Your task to perform on an android device: turn off data saver in the chrome app Image 0: 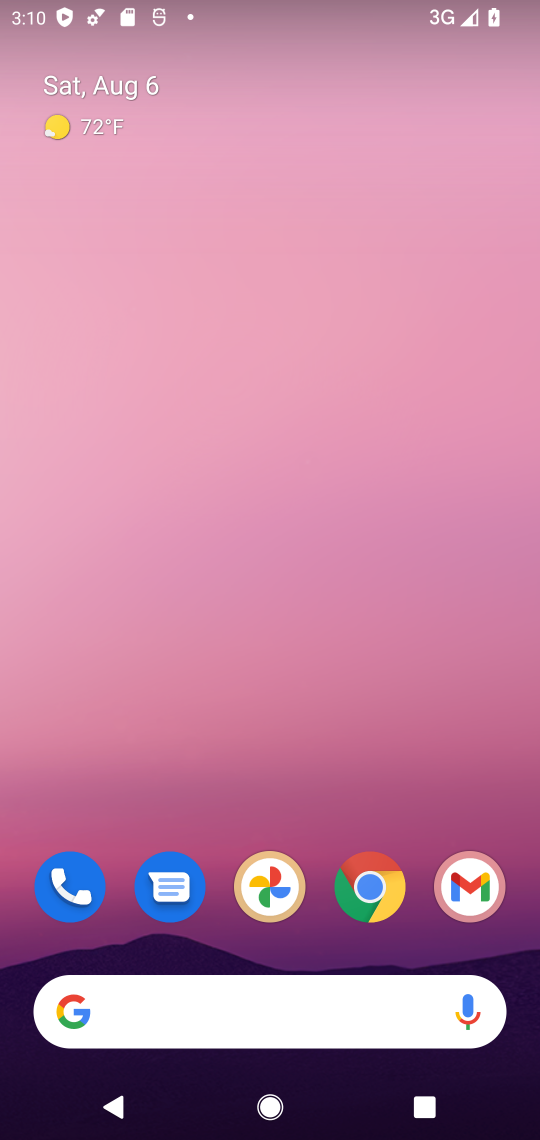
Step 0: press home button
Your task to perform on an android device: turn off data saver in the chrome app Image 1: 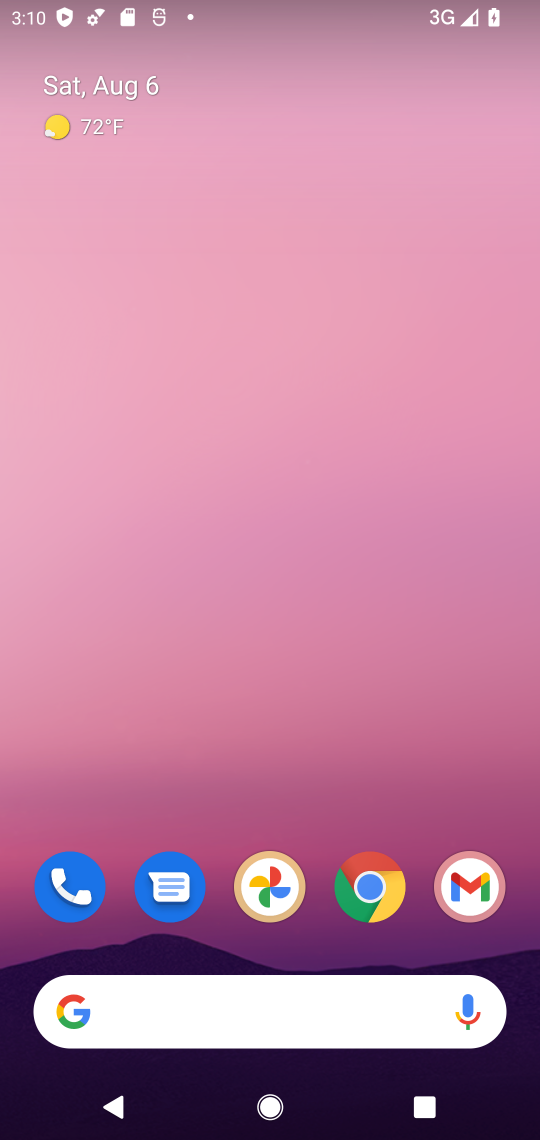
Step 1: drag from (421, 745) to (422, 277)
Your task to perform on an android device: turn off data saver in the chrome app Image 2: 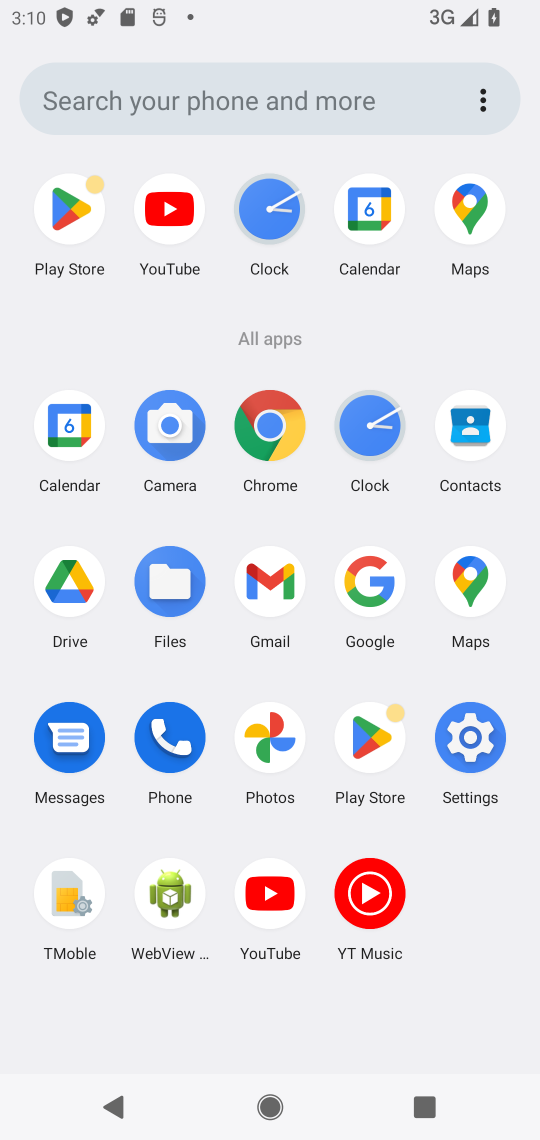
Step 2: click (266, 453)
Your task to perform on an android device: turn off data saver in the chrome app Image 3: 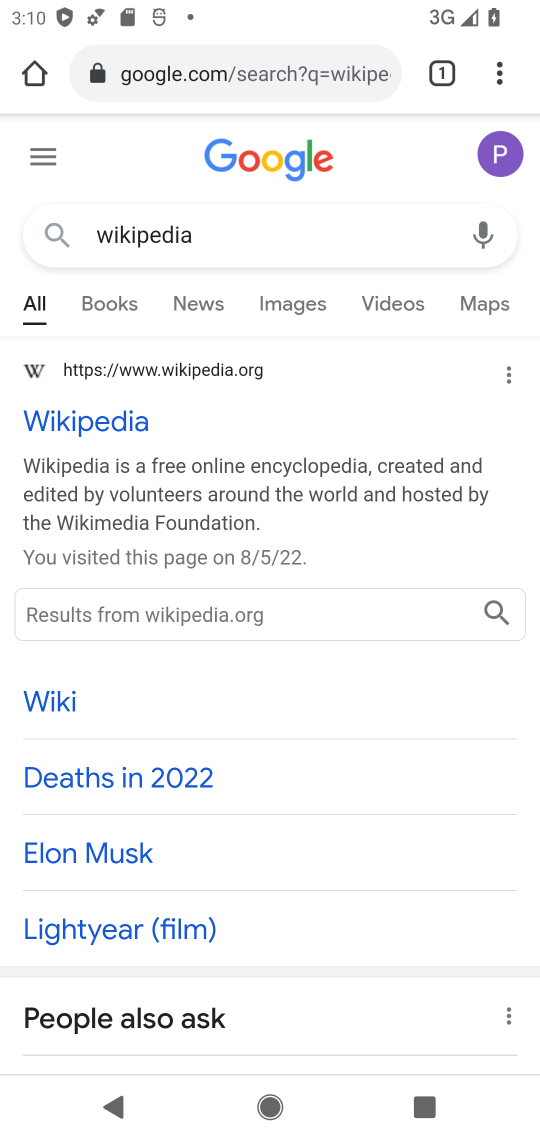
Step 3: click (492, 76)
Your task to perform on an android device: turn off data saver in the chrome app Image 4: 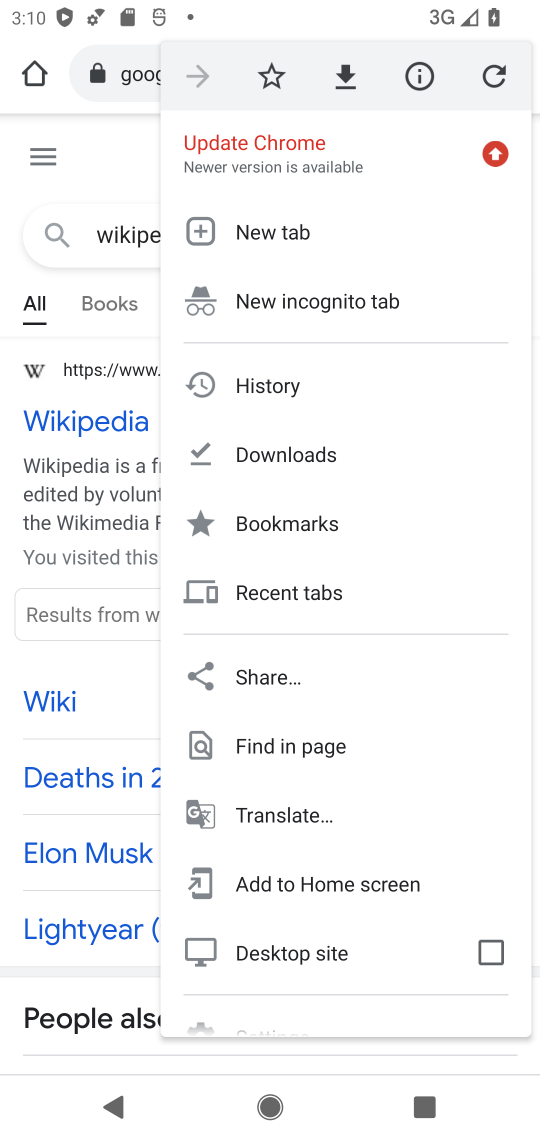
Step 4: drag from (457, 443) to (468, 329)
Your task to perform on an android device: turn off data saver in the chrome app Image 5: 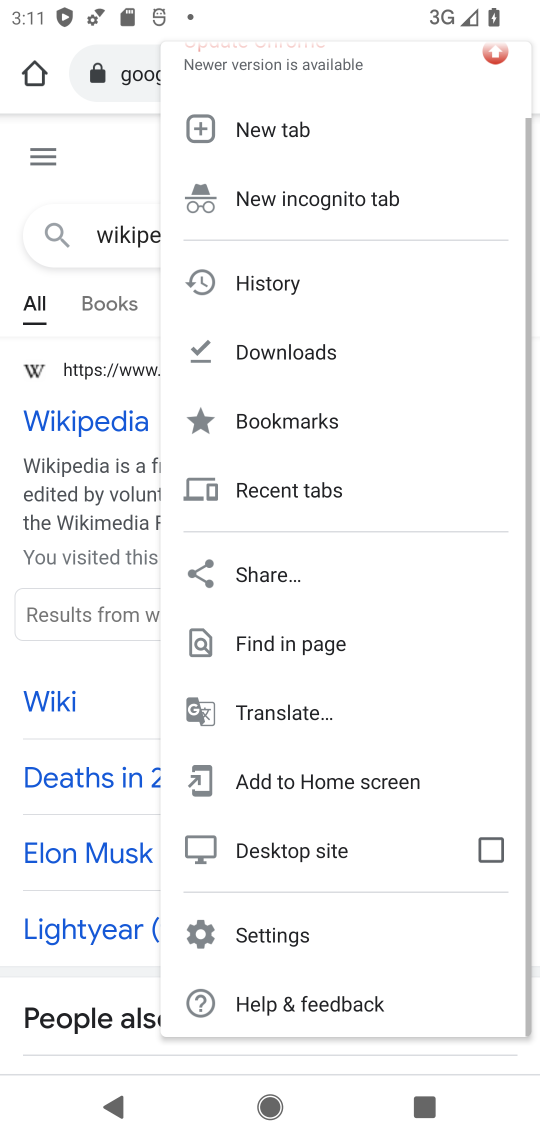
Step 5: drag from (429, 566) to (432, 373)
Your task to perform on an android device: turn off data saver in the chrome app Image 6: 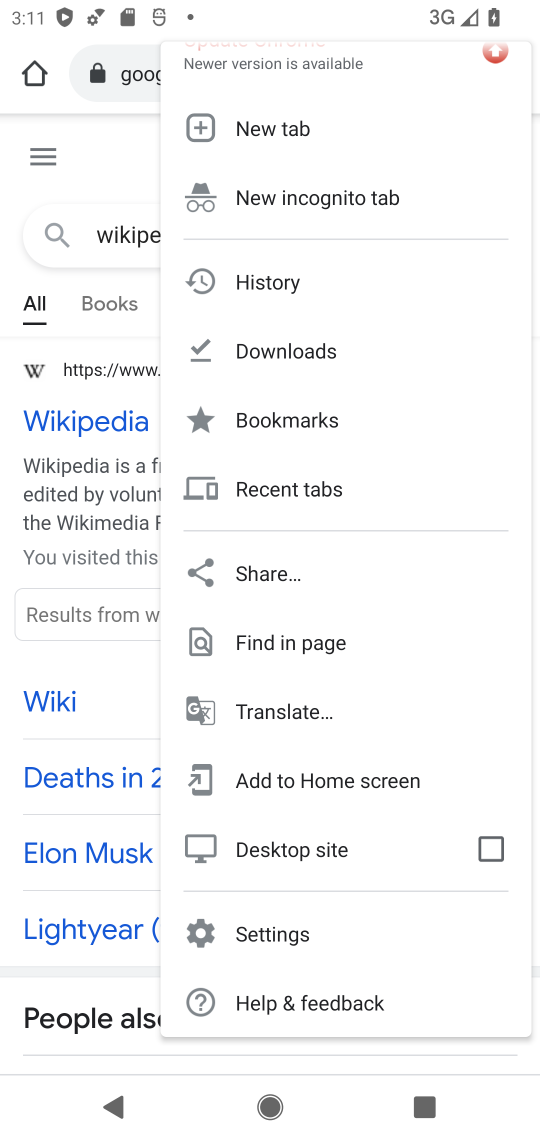
Step 6: click (316, 924)
Your task to perform on an android device: turn off data saver in the chrome app Image 7: 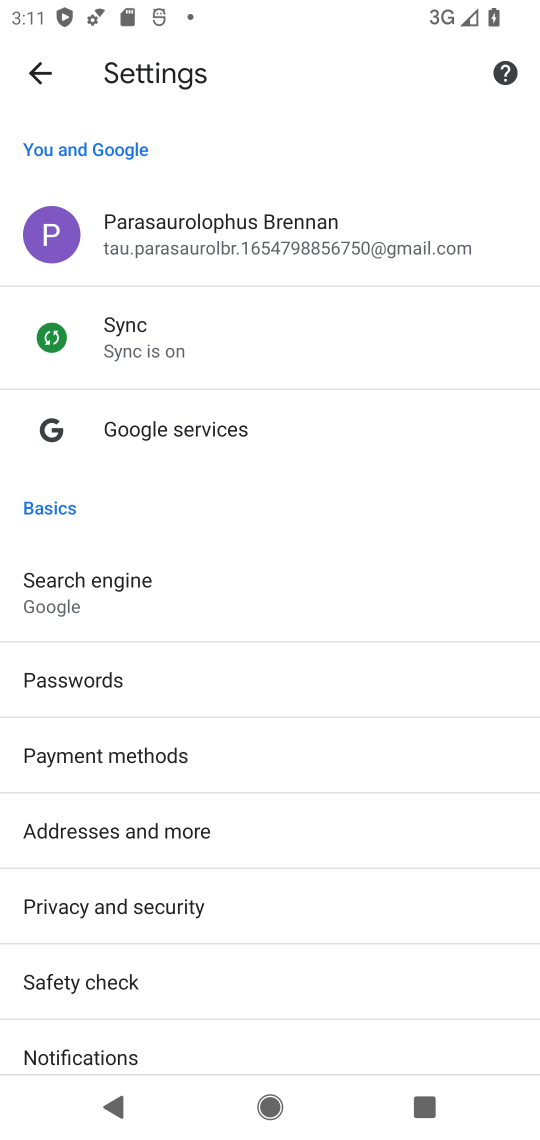
Step 7: drag from (385, 890) to (401, 710)
Your task to perform on an android device: turn off data saver in the chrome app Image 8: 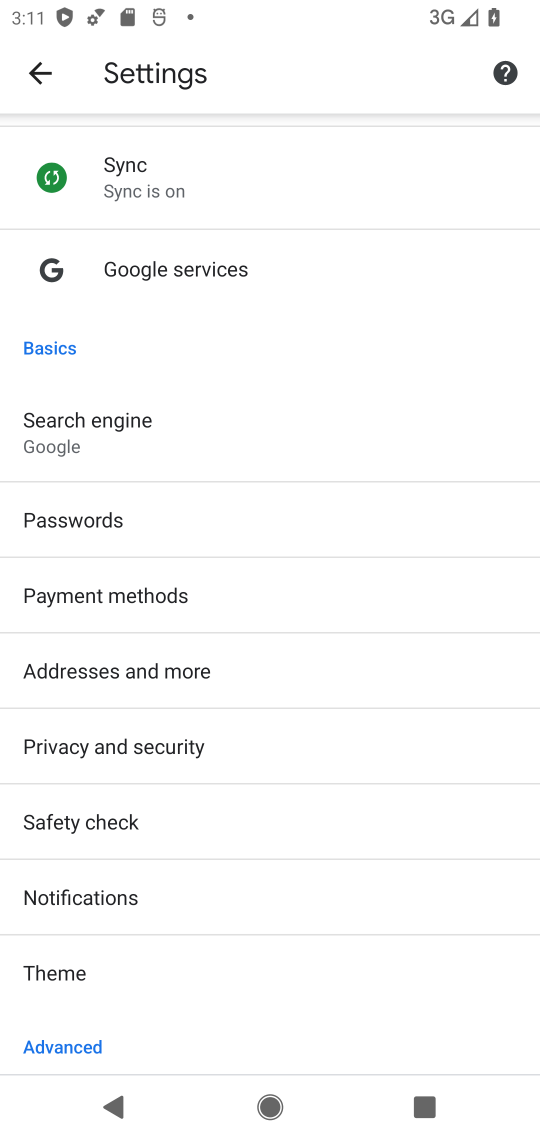
Step 8: drag from (390, 840) to (402, 631)
Your task to perform on an android device: turn off data saver in the chrome app Image 9: 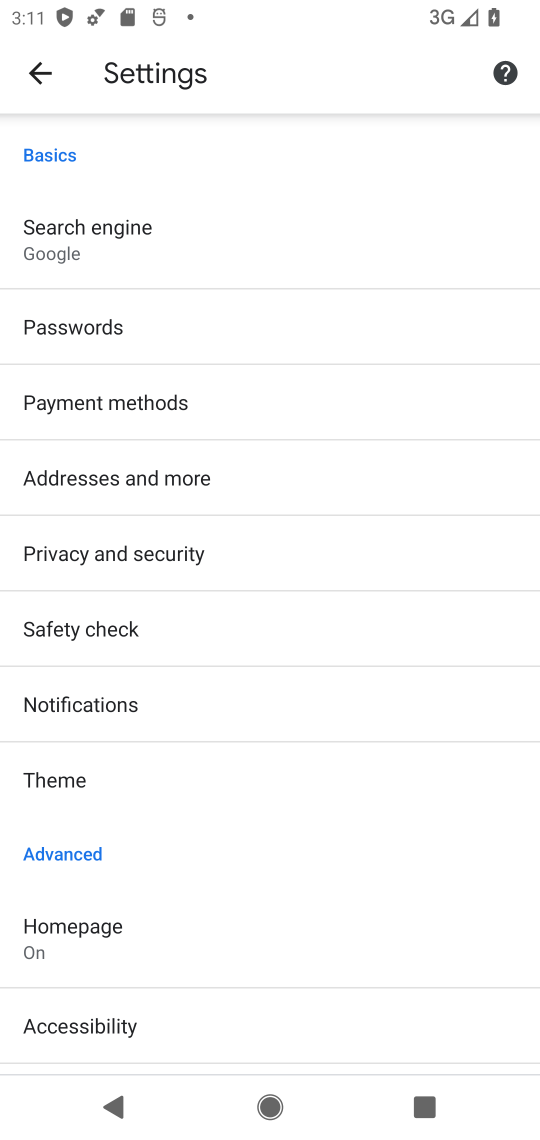
Step 9: drag from (404, 847) to (407, 603)
Your task to perform on an android device: turn off data saver in the chrome app Image 10: 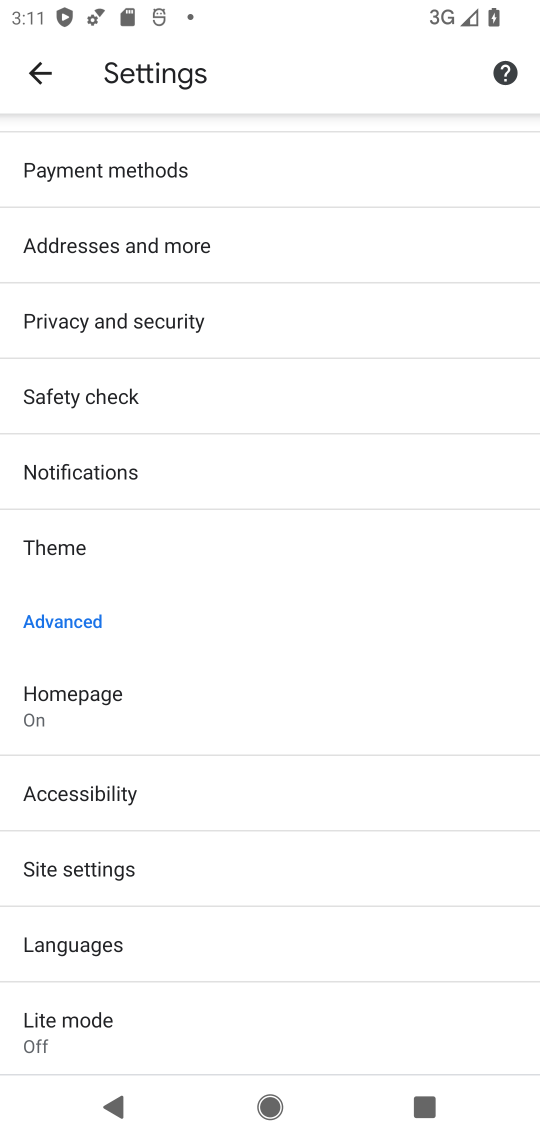
Step 10: drag from (393, 838) to (388, 605)
Your task to perform on an android device: turn off data saver in the chrome app Image 11: 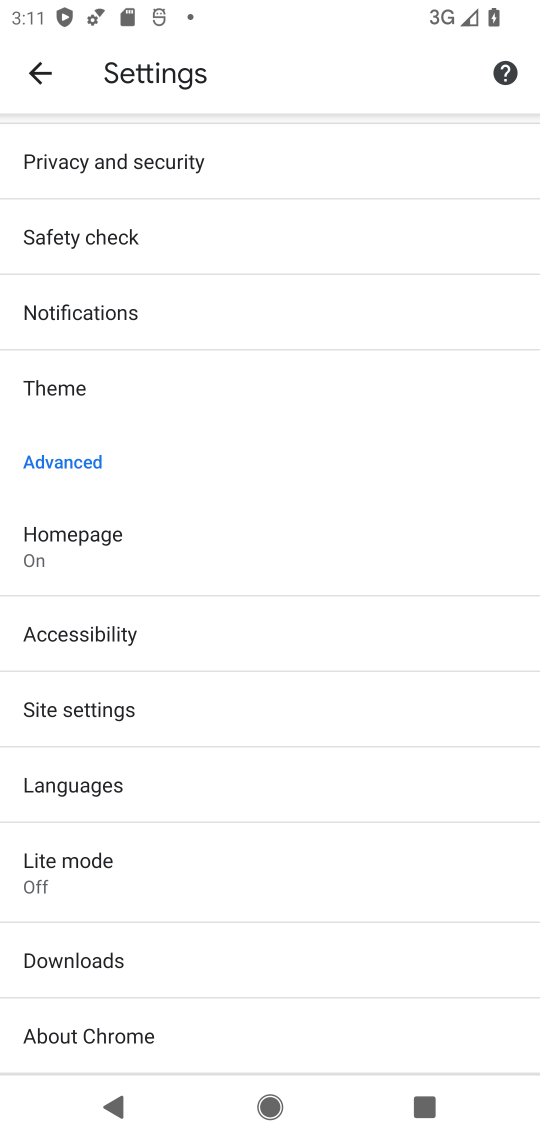
Step 11: click (389, 864)
Your task to perform on an android device: turn off data saver in the chrome app Image 12: 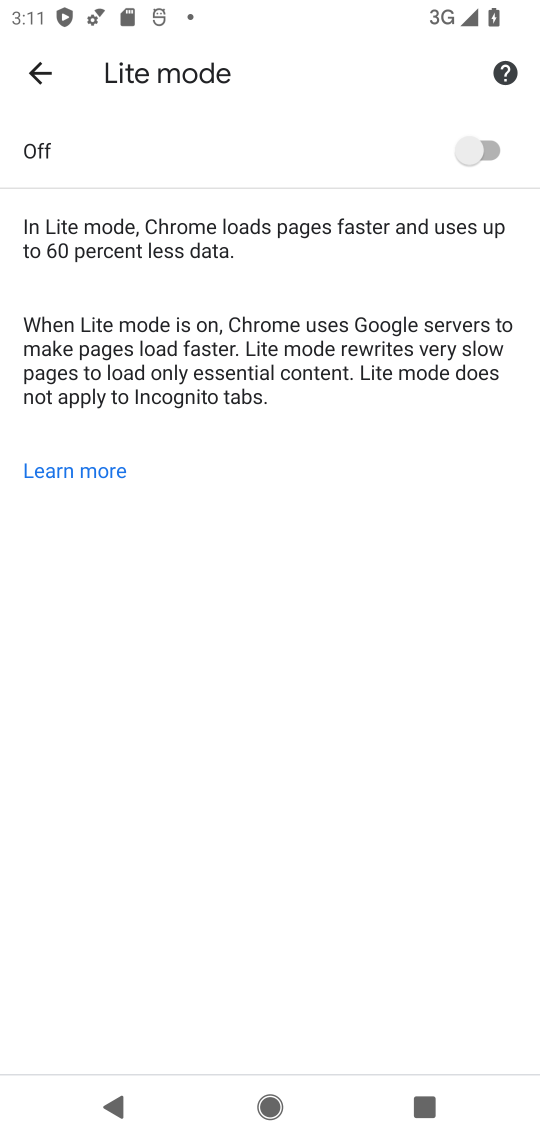
Step 12: task complete